Your task to perform on an android device: Open settings on Google Maps Image 0: 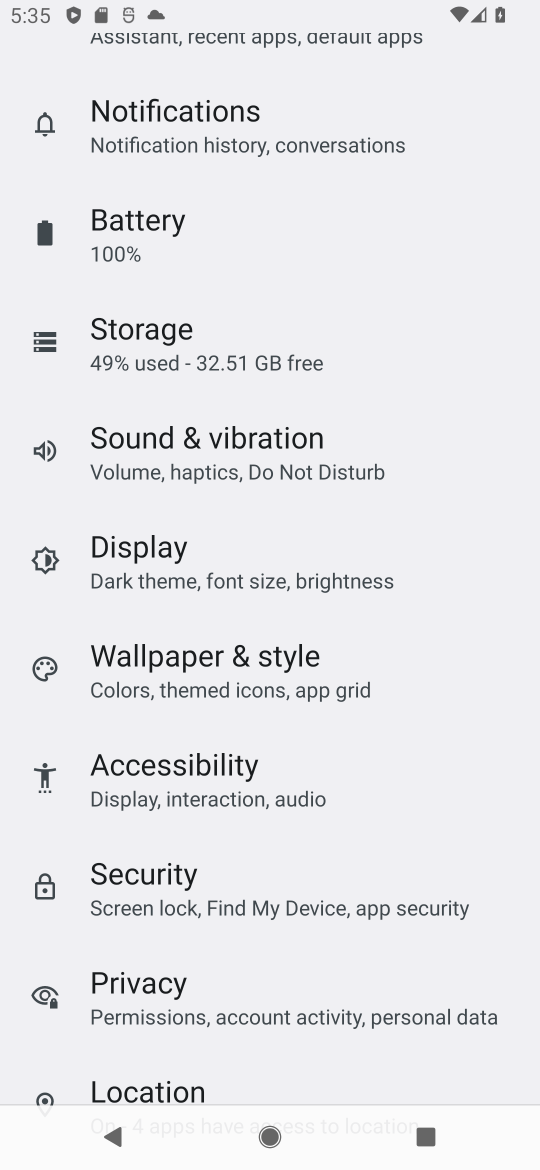
Step 0: press home button
Your task to perform on an android device: Open settings on Google Maps Image 1: 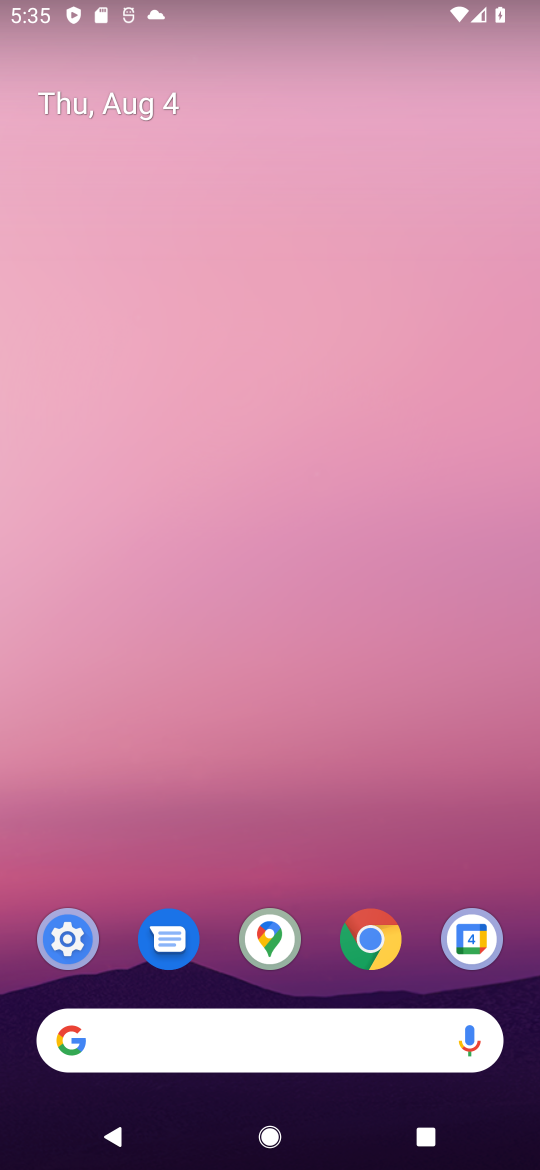
Step 1: click (266, 952)
Your task to perform on an android device: Open settings on Google Maps Image 2: 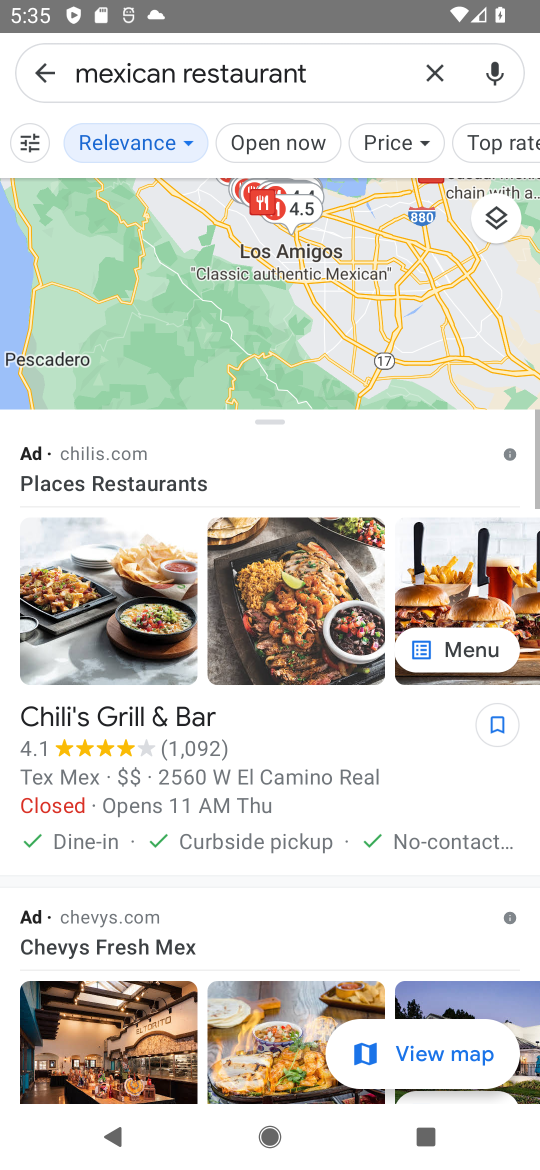
Step 2: click (28, 74)
Your task to perform on an android device: Open settings on Google Maps Image 3: 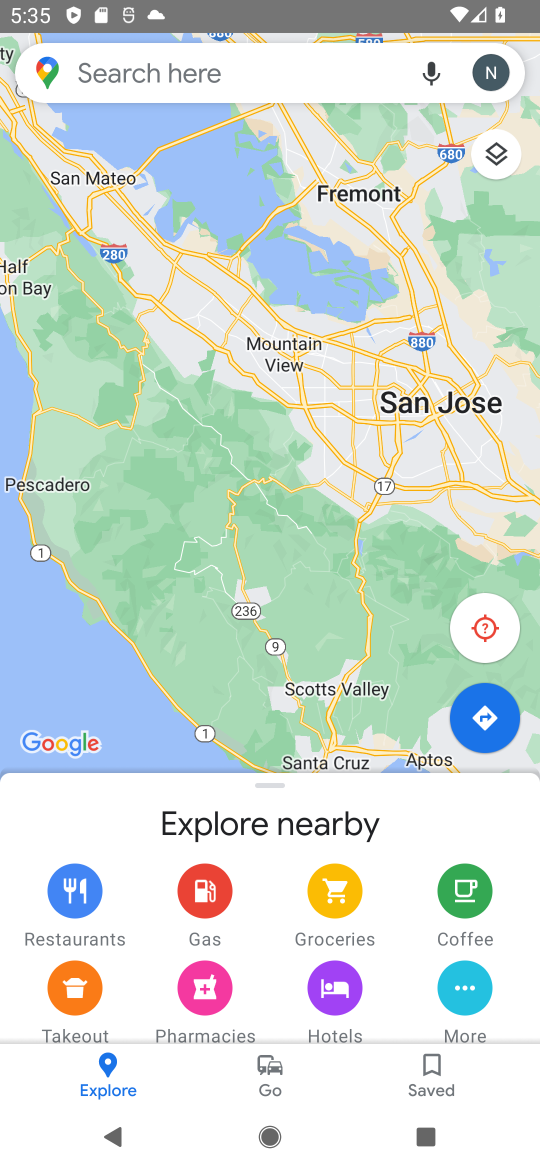
Step 3: click (477, 77)
Your task to perform on an android device: Open settings on Google Maps Image 4: 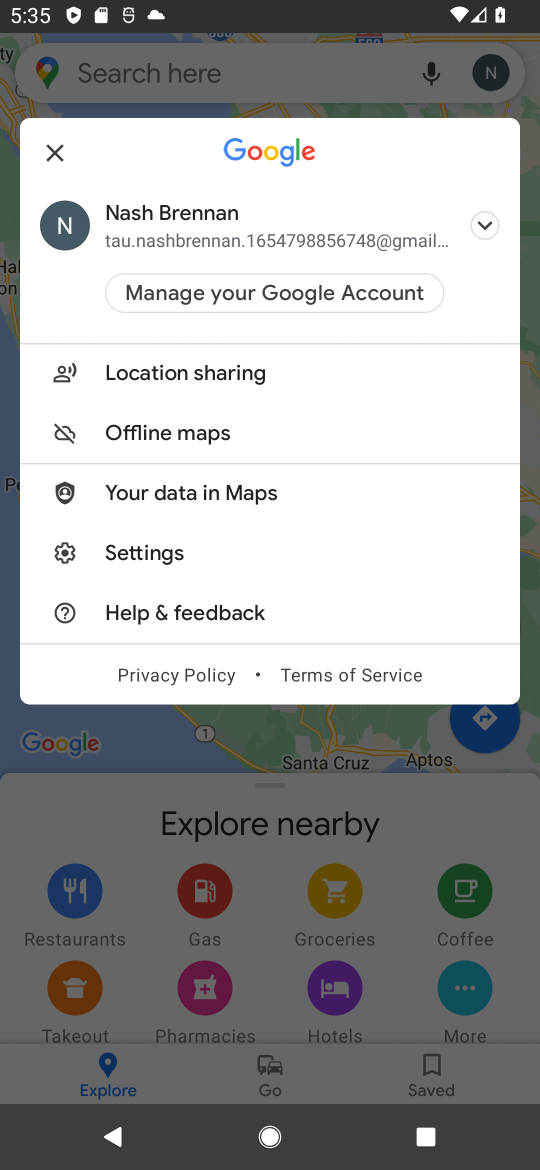
Step 4: click (158, 558)
Your task to perform on an android device: Open settings on Google Maps Image 5: 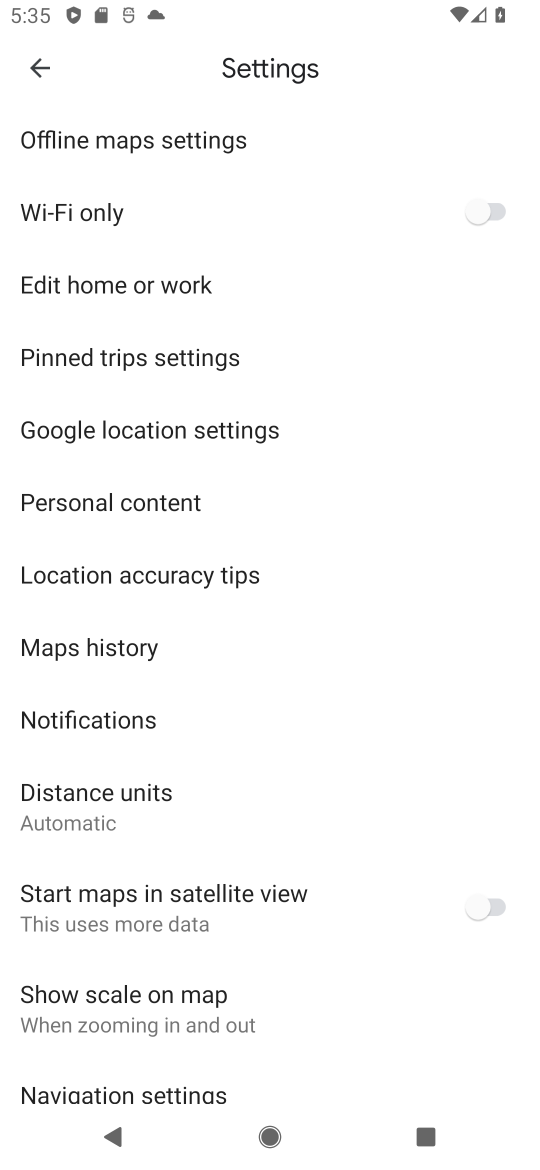
Step 5: task complete